Your task to perform on an android device: turn pop-ups off in chrome Image 0: 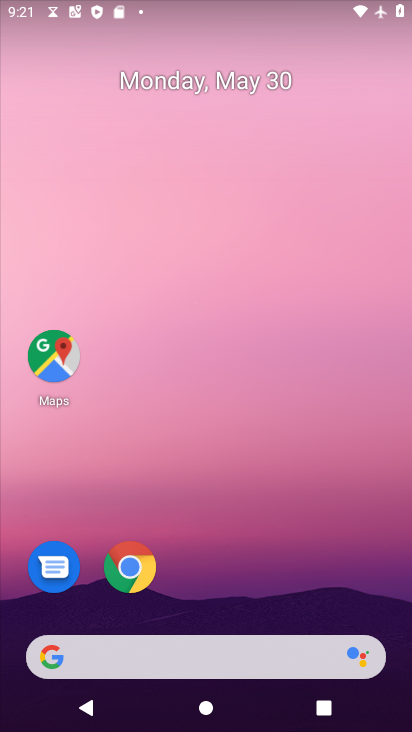
Step 0: click (142, 580)
Your task to perform on an android device: turn pop-ups off in chrome Image 1: 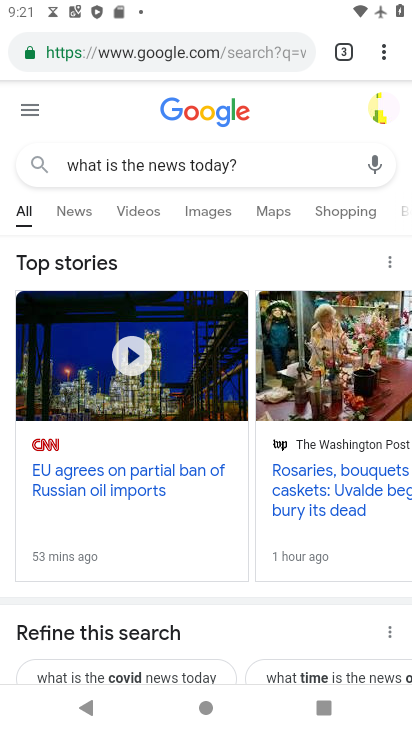
Step 1: click (394, 54)
Your task to perform on an android device: turn pop-ups off in chrome Image 2: 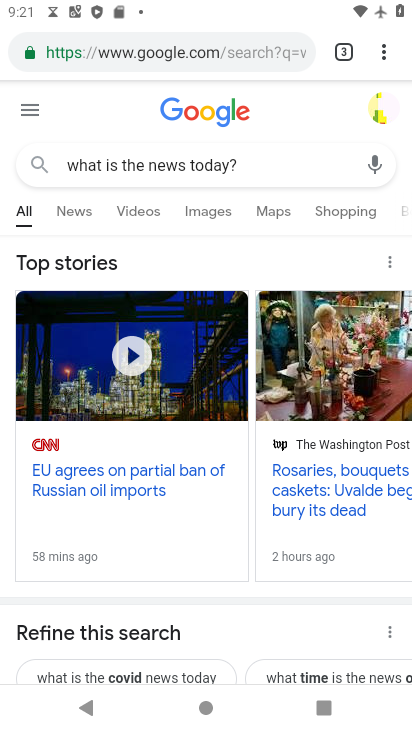
Step 2: click (389, 54)
Your task to perform on an android device: turn pop-ups off in chrome Image 3: 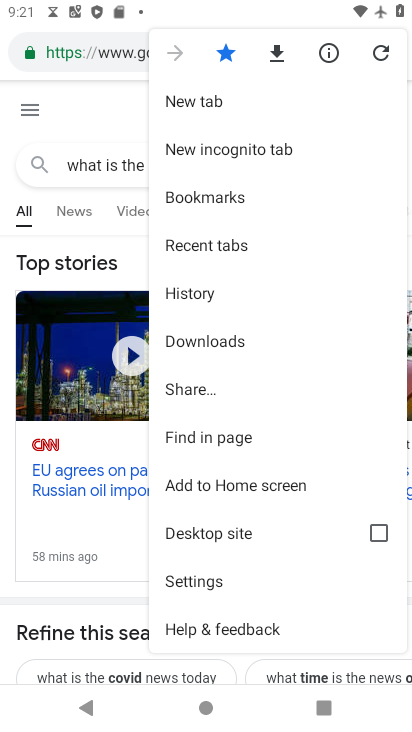
Step 3: click (232, 579)
Your task to perform on an android device: turn pop-ups off in chrome Image 4: 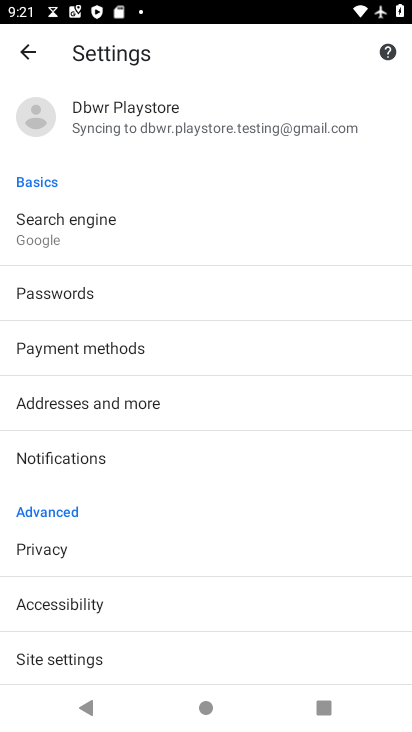
Step 4: drag from (249, 622) to (216, 228)
Your task to perform on an android device: turn pop-ups off in chrome Image 5: 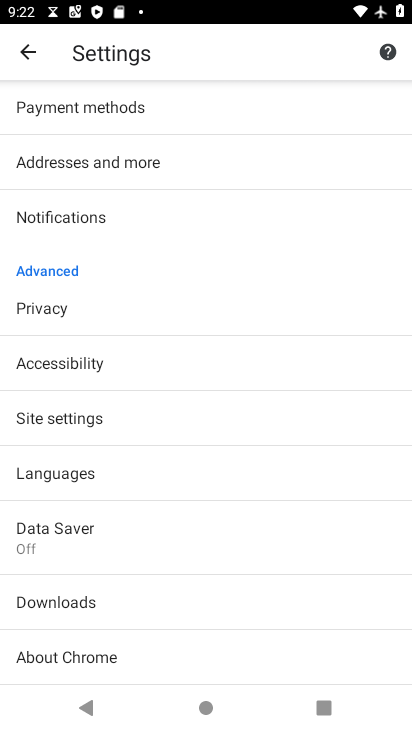
Step 5: click (151, 433)
Your task to perform on an android device: turn pop-ups off in chrome Image 6: 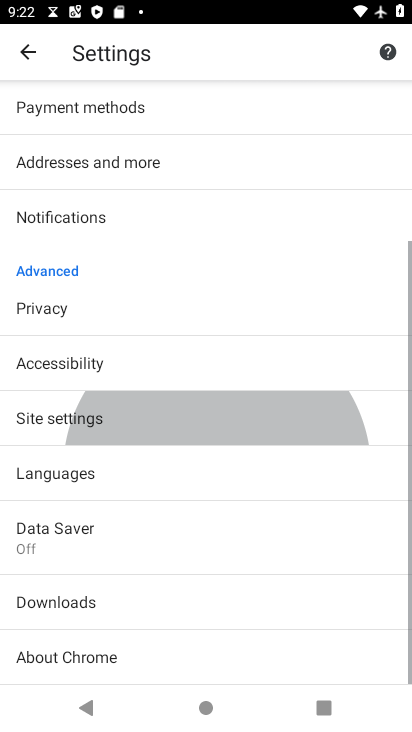
Step 6: click (102, 425)
Your task to perform on an android device: turn pop-ups off in chrome Image 7: 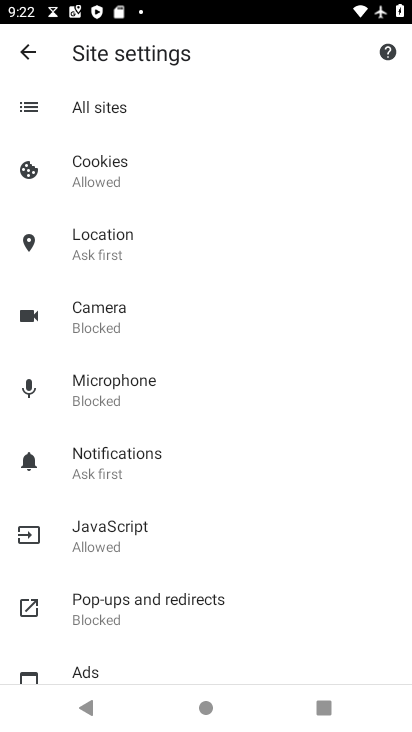
Step 7: click (242, 606)
Your task to perform on an android device: turn pop-ups off in chrome Image 8: 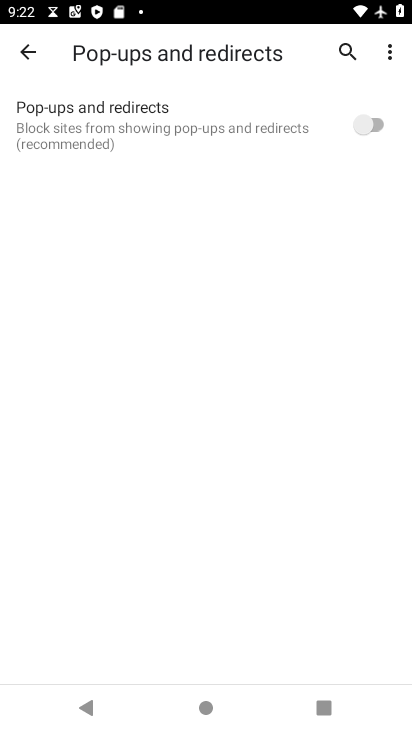
Step 8: task complete